Your task to perform on an android device: What's the news in Cambodia? Image 0: 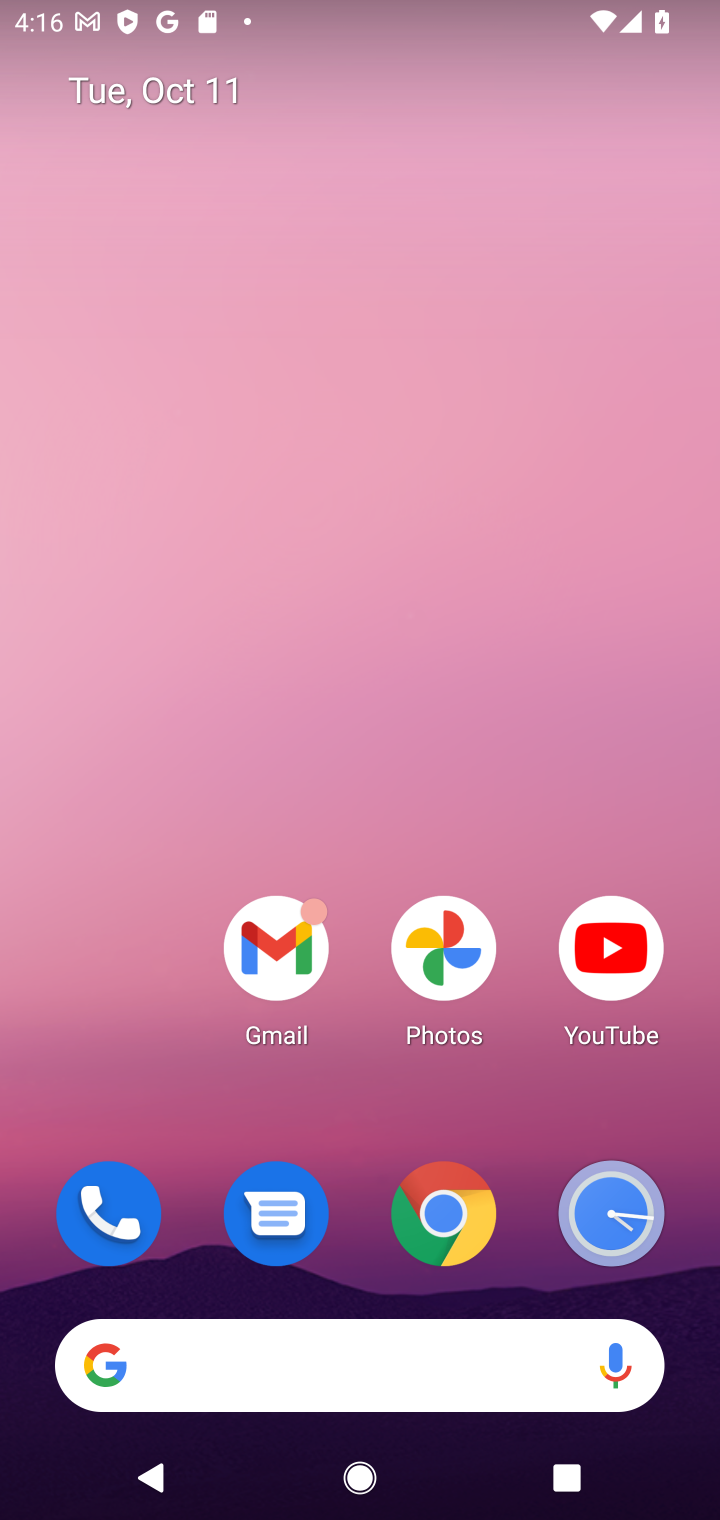
Step 0: click (440, 1215)
Your task to perform on an android device: What's the news in Cambodia? Image 1: 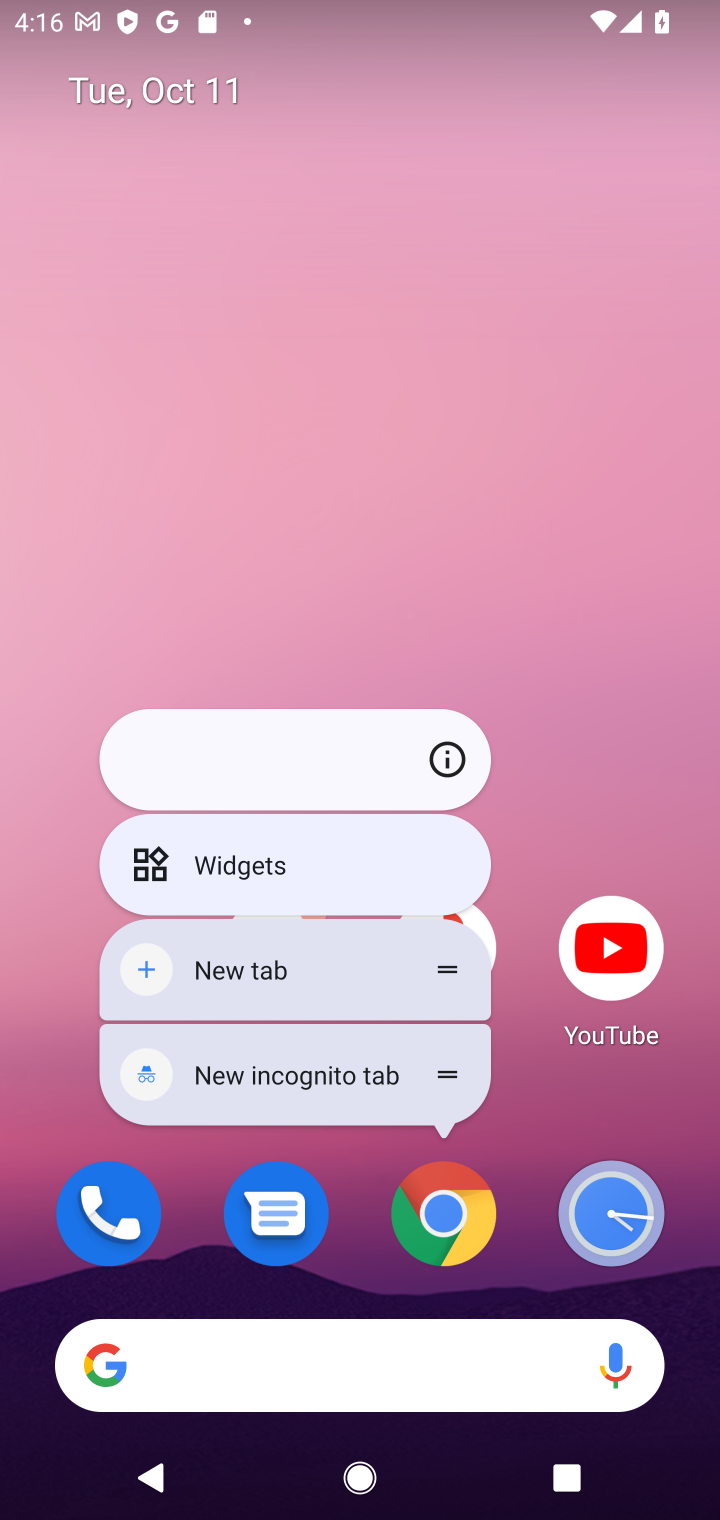
Step 1: click (451, 1217)
Your task to perform on an android device: What's the news in Cambodia? Image 2: 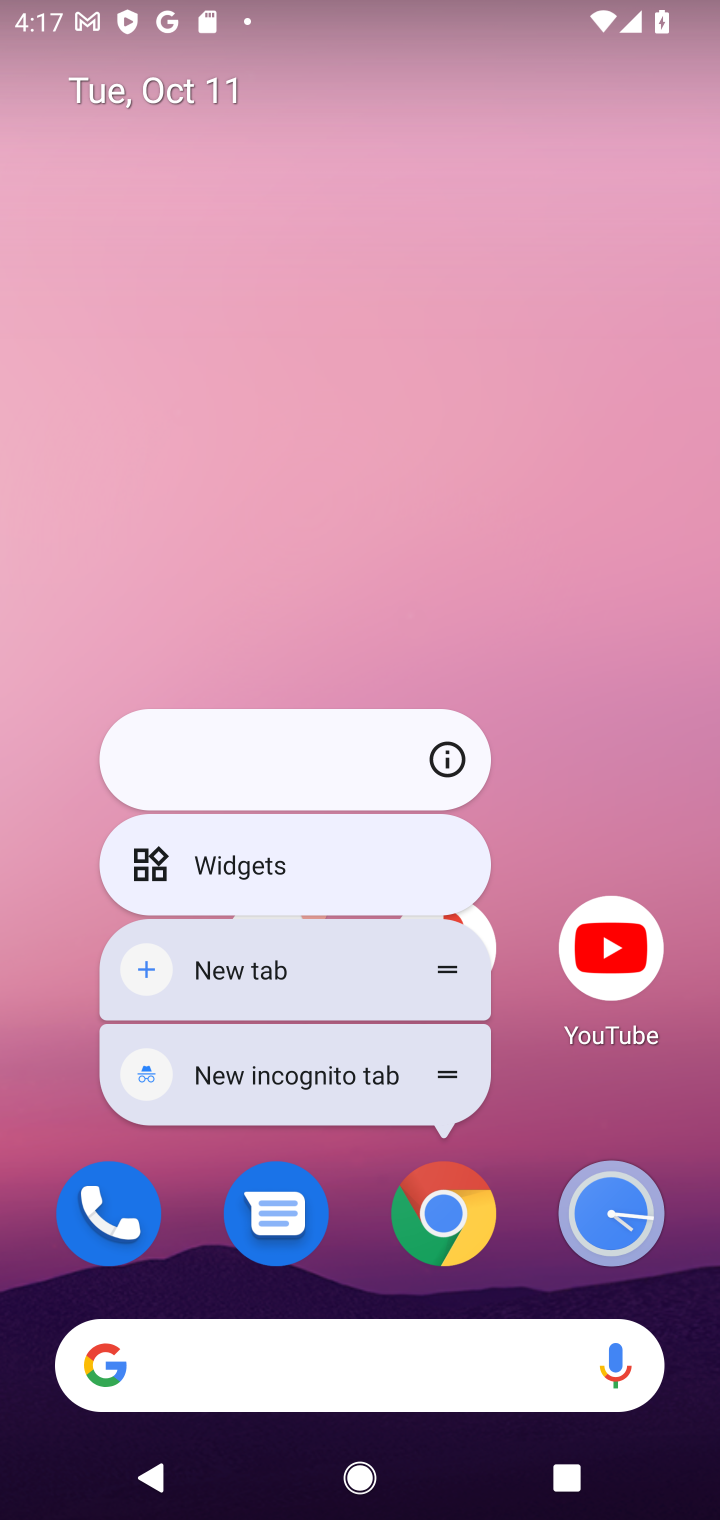
Step 2: click (453, 1211)
Your task to perform on an android device: What's the news in Cambodia? Image 3: 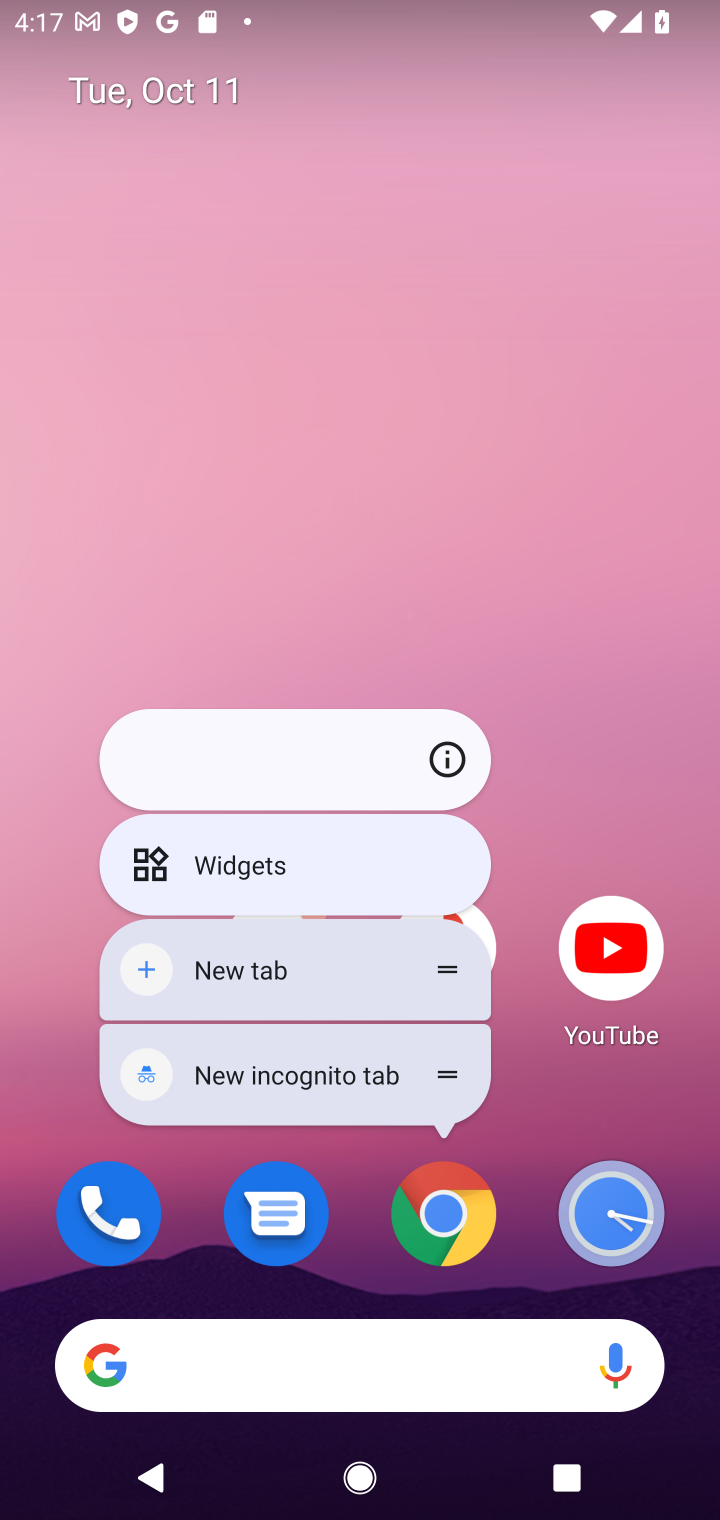
Step 3: click (457, 1227)
Your task to perform on an android device: What's the news in Cambodia? Image 4: 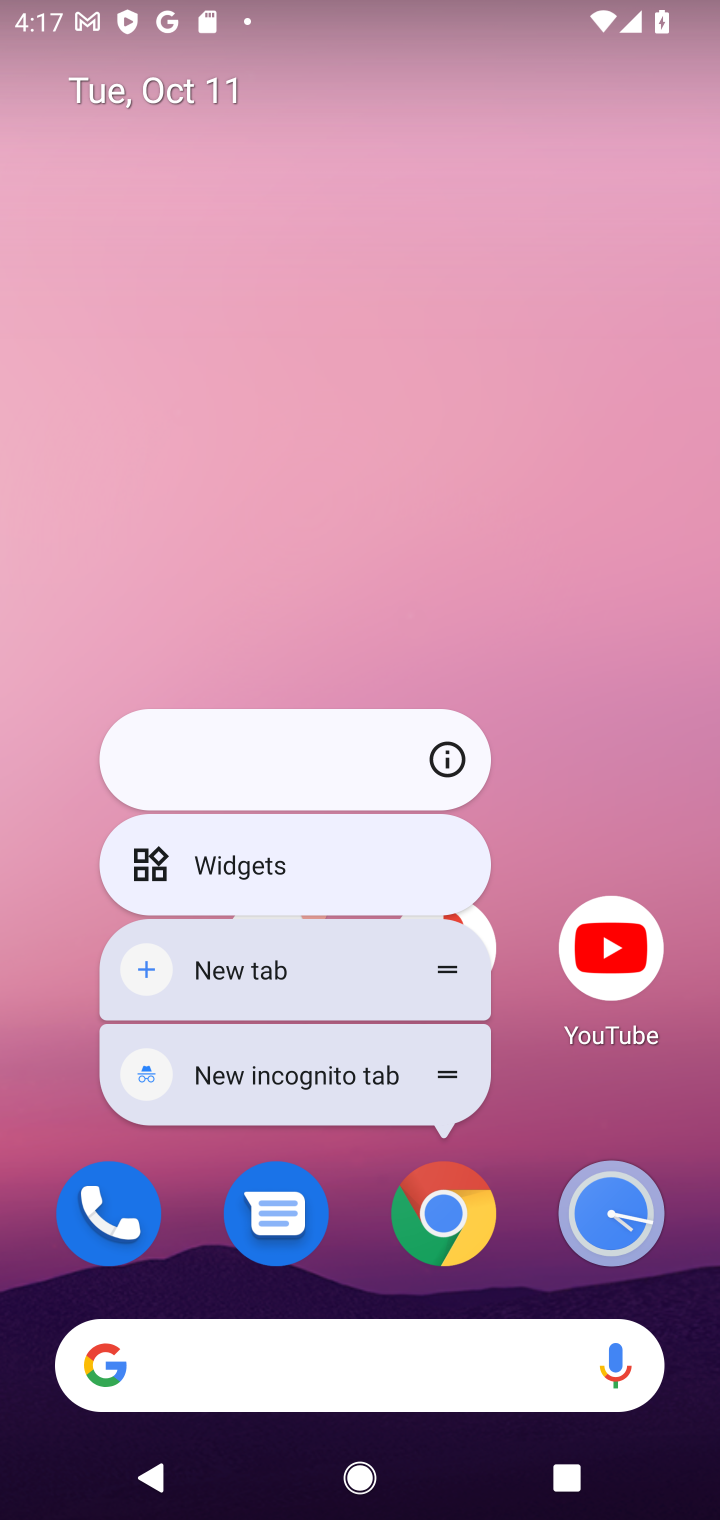
Step 4: click (455, 1235)
Your task to perform on an android device: What's the news in Cambodia? Image 5: 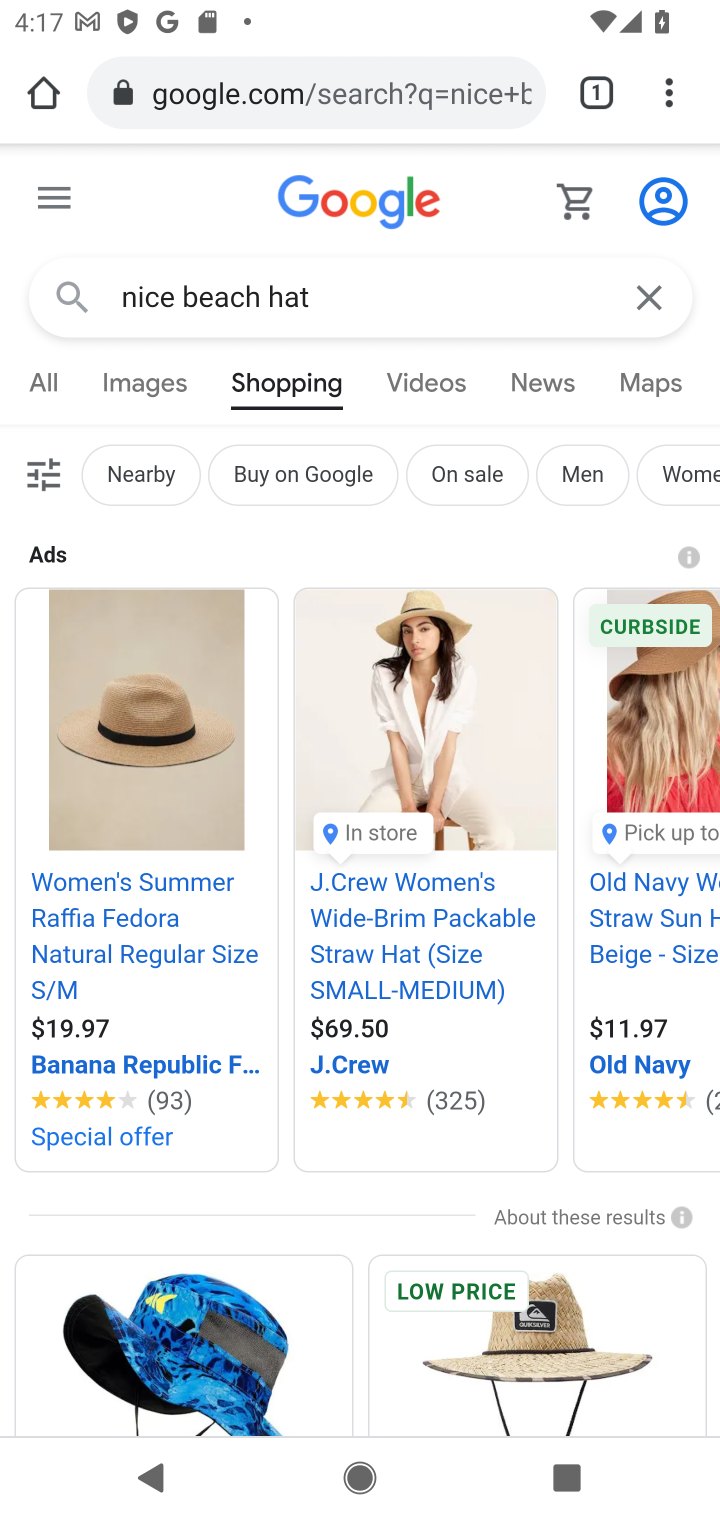
Step 5: click (328, 291)
Your task to perform on an android device: What's the news in Cambodia? Image 6: 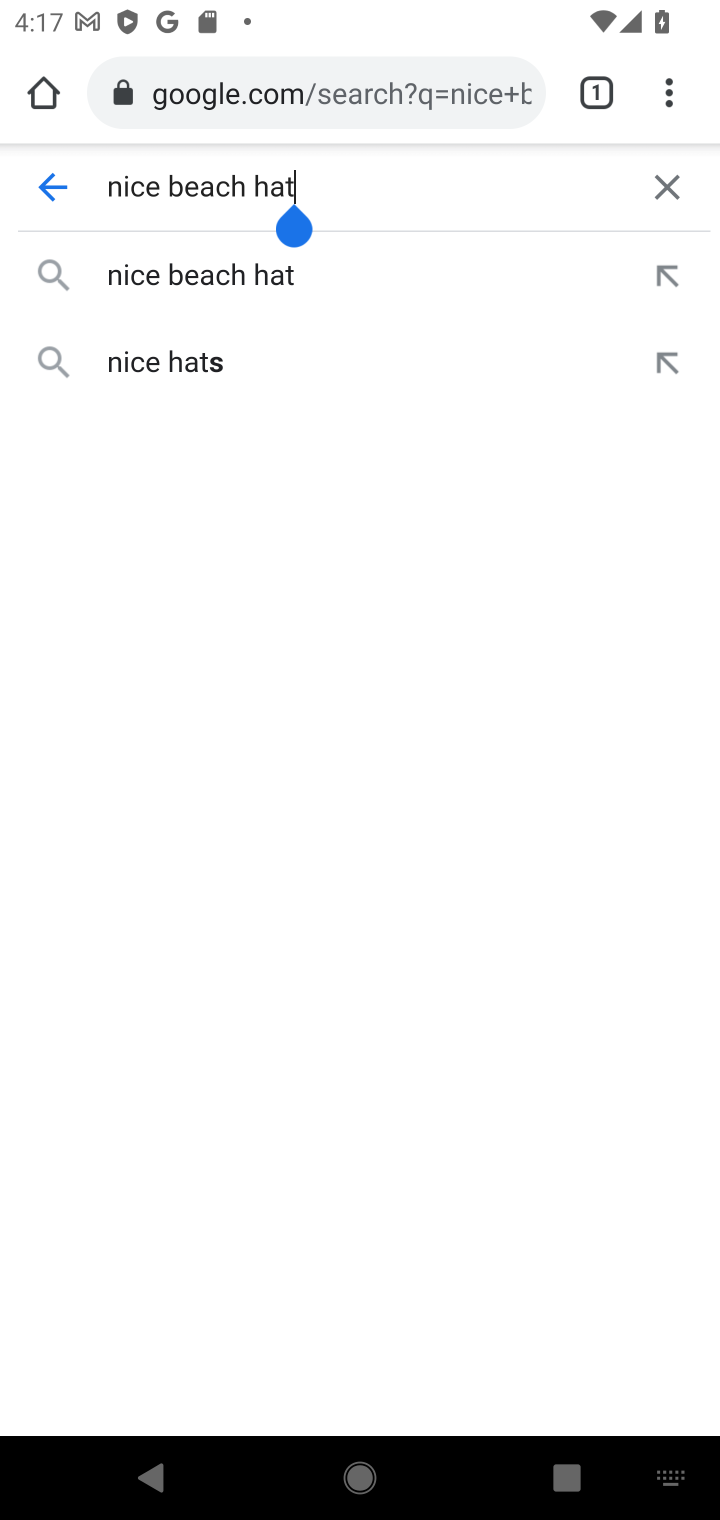
Step 6: click (670, 188)
Your task to perform on an android device: What's the news in Cambodia? Image 7: 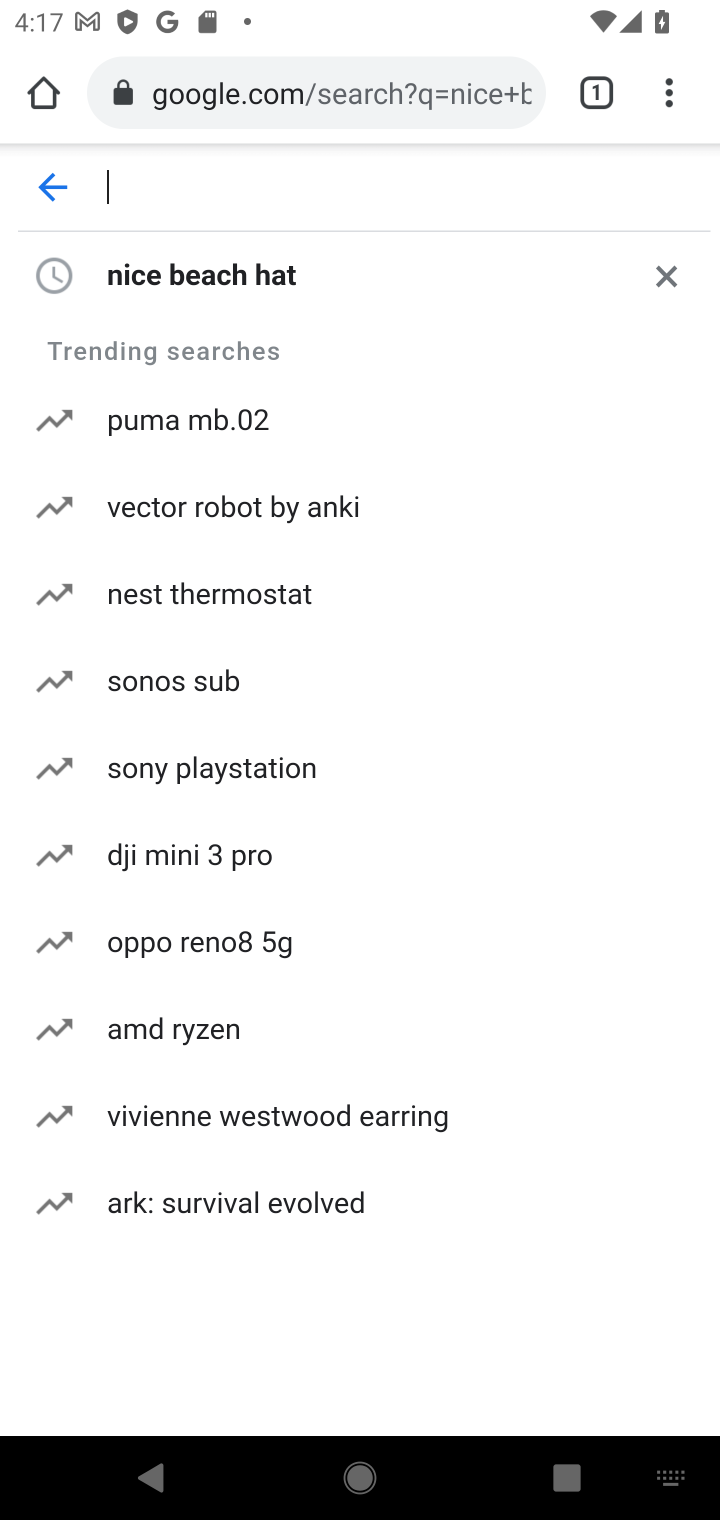
Step 7: type "cambodia news"
Your task to perform on an android device: What's the news in Cambodia? Image 8: 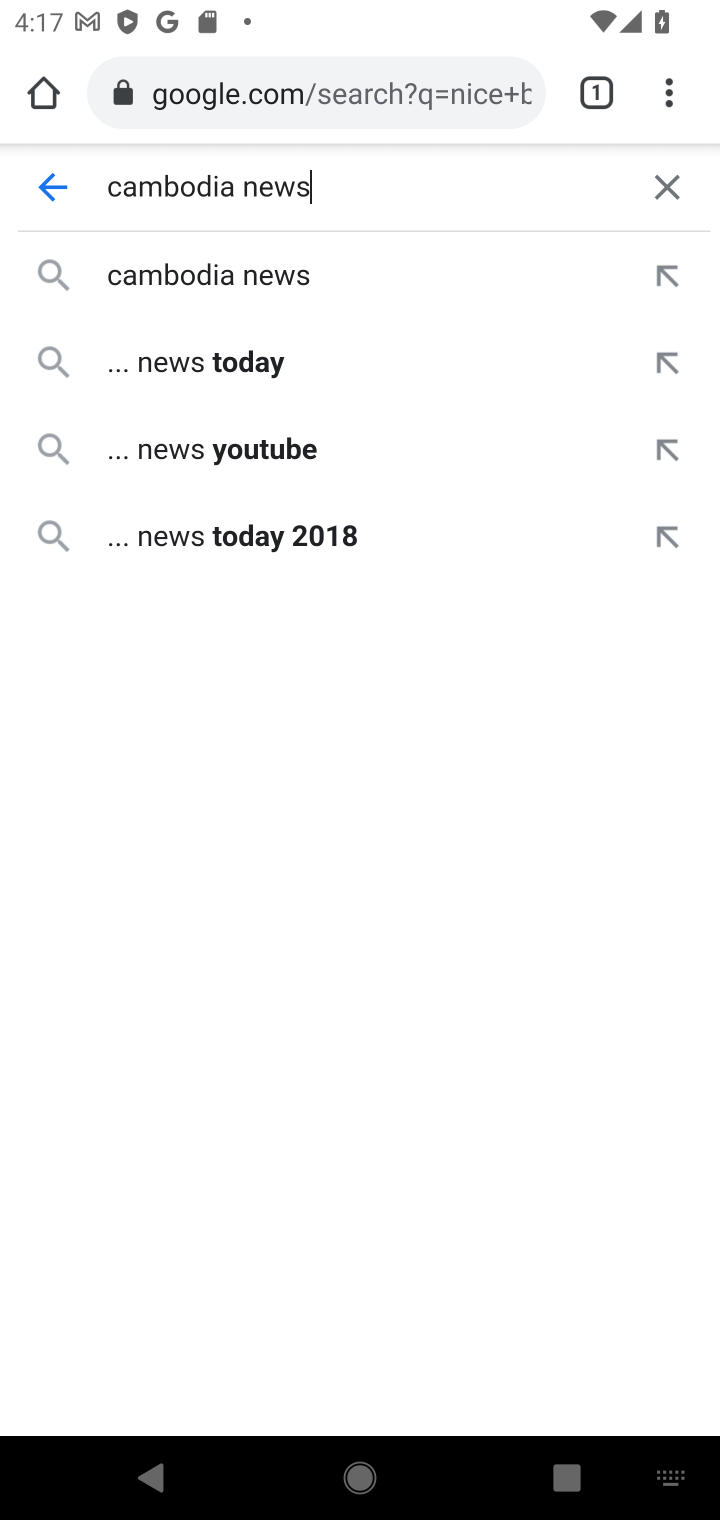
Step 8: click (269, 271)
Your task to perform on an android device: What's the news in Cambodia? Image 9: 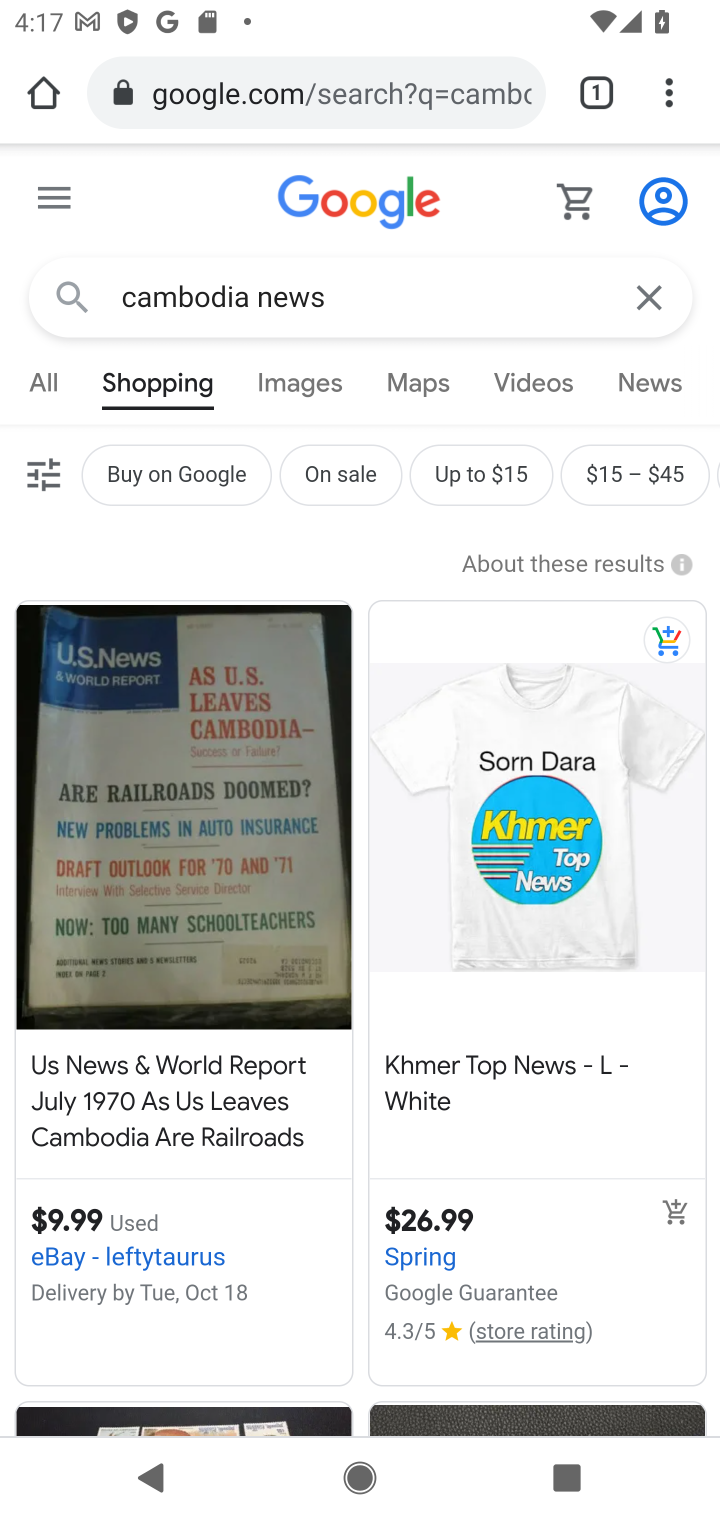
Step 9: click (668, 378)
Your task to perform on an android device: What's the news in Cambodia? Image 10: 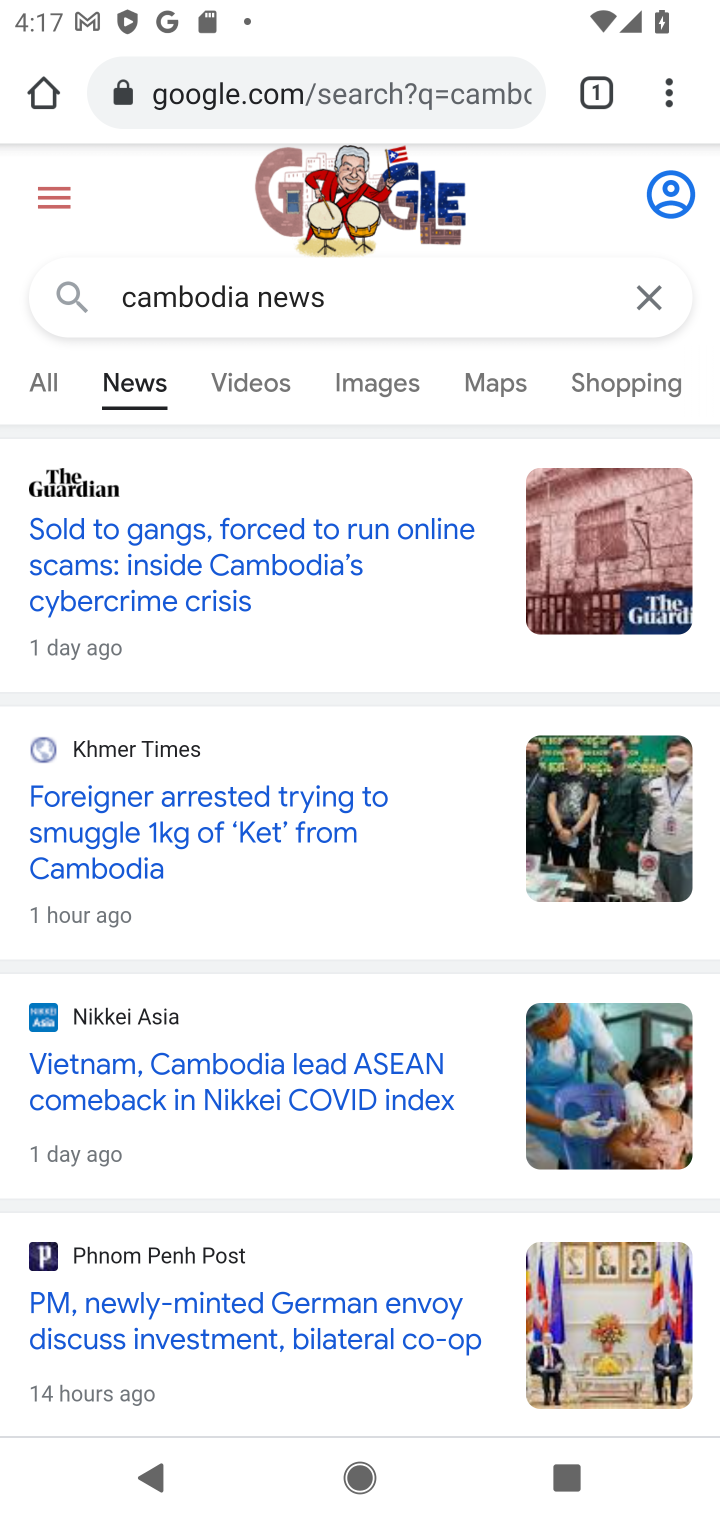
Step 10: click (159, 612)
Your task to perform on an android device: What's the news in Cambodia? Image 11: 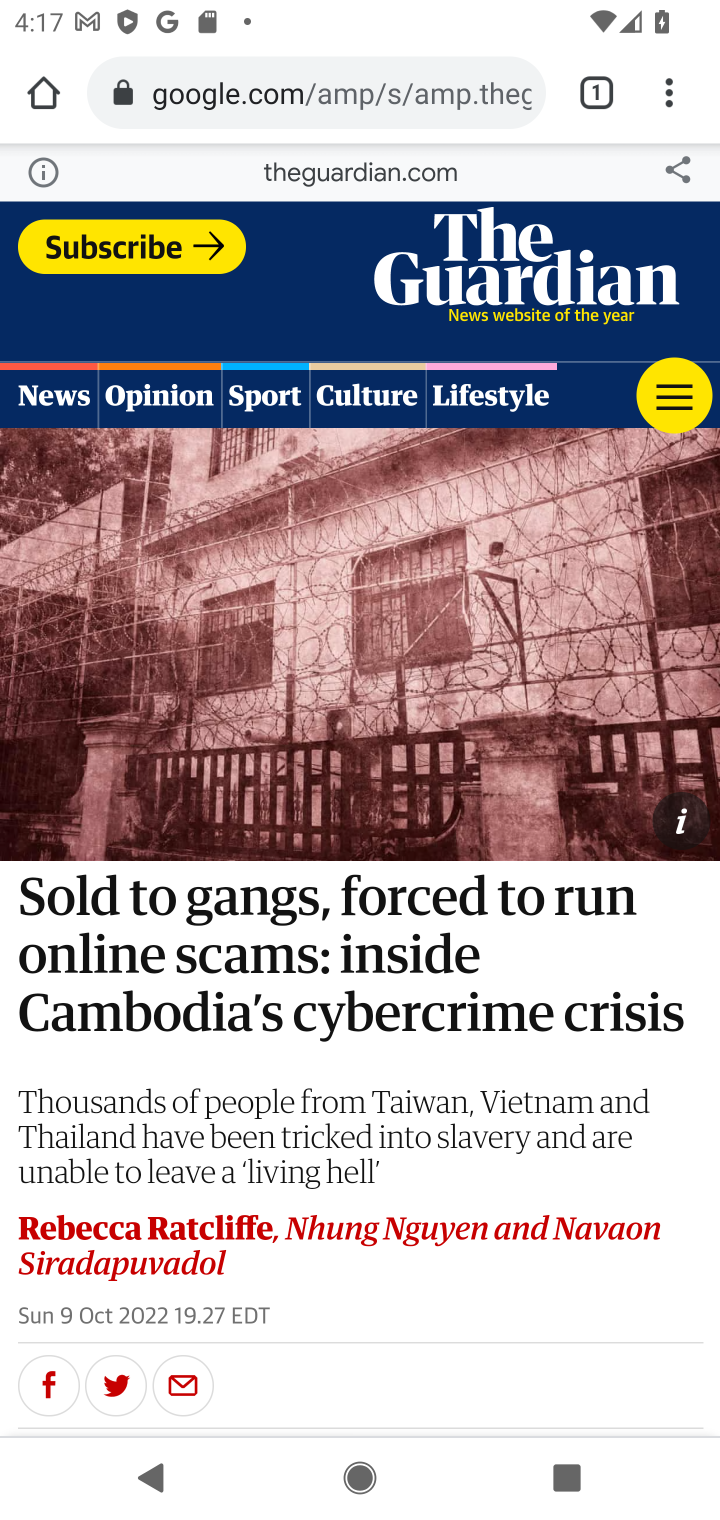
Step 11: task complete